Your task to perform on an android device: turn off airplane mode Image 0: 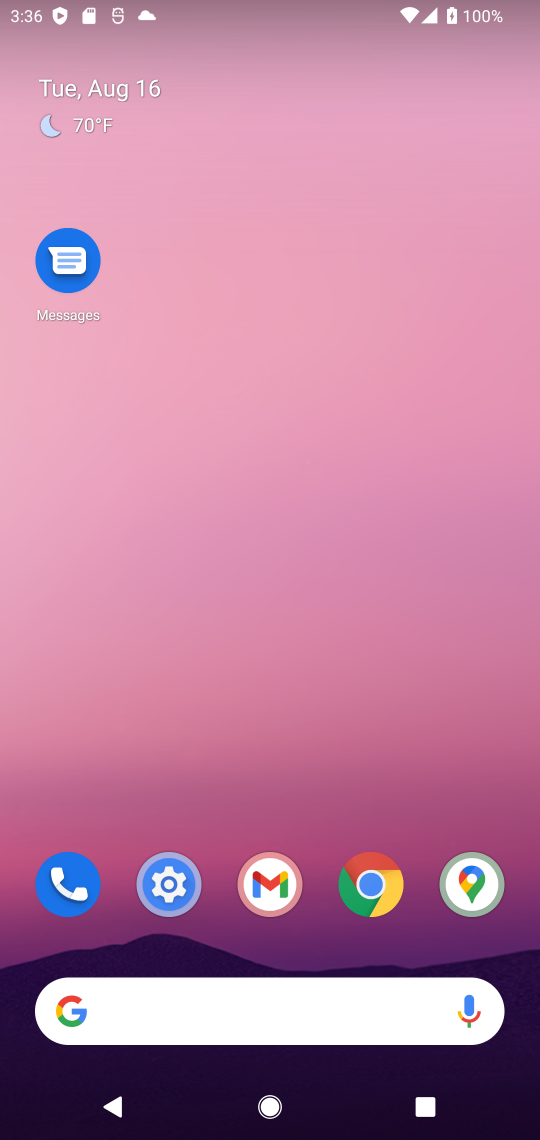
Step 0: click (155, 876)
Your task to perform on an android device: turn off airplane mode Image 1: 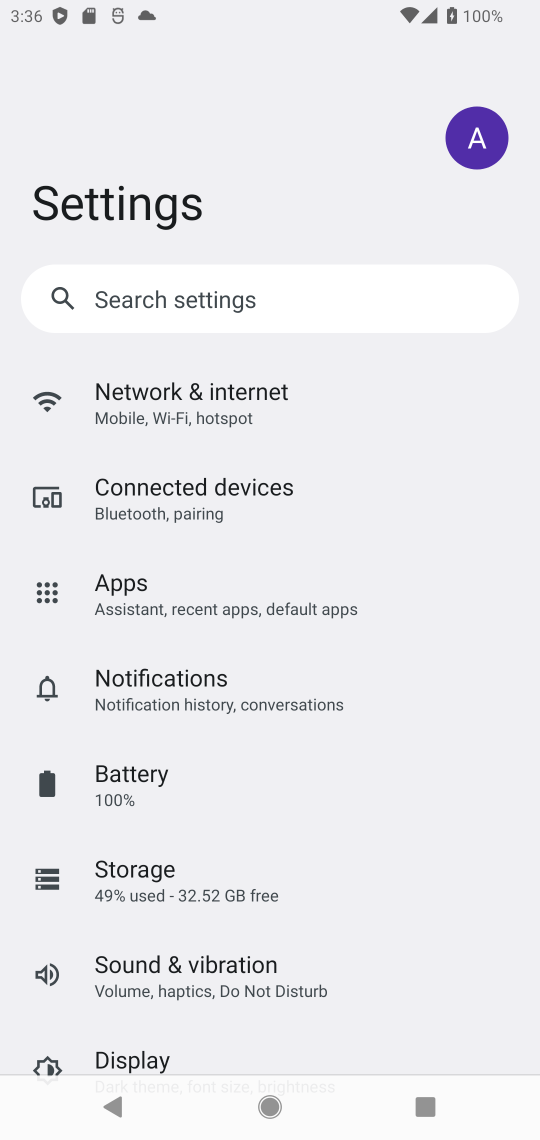
Step 1: click (232, 409)
Your task to perform on an android device: turn off airplane mode Image 2: 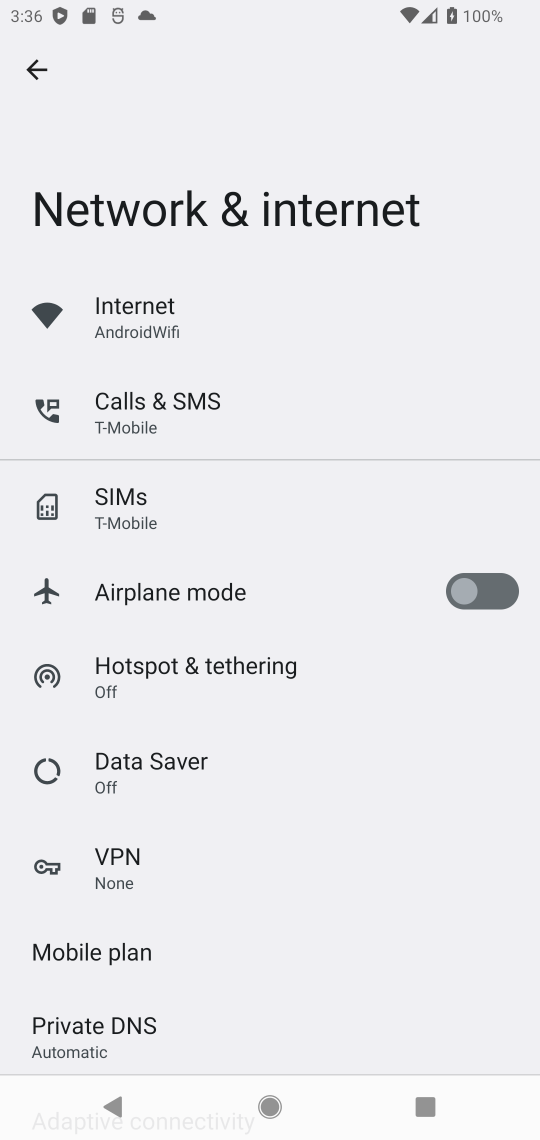
Step 2: task complete